Your task to perform on an android device: toggle show notifications on the lock screen Image 0: 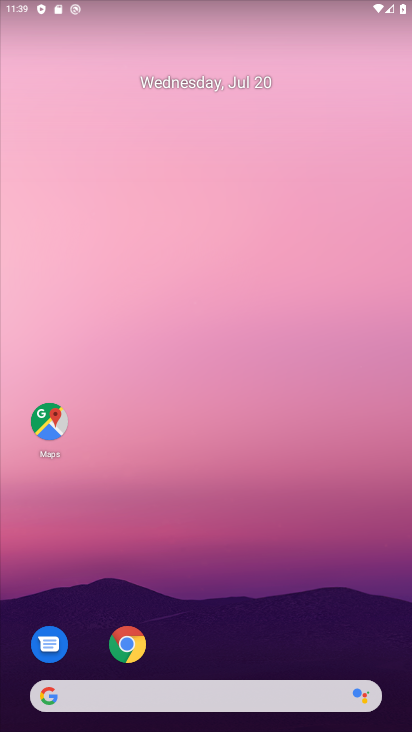
Step 0: drag from (180, 570) to (191, 196)
Your task to perform on an android device: toggle show notifications on the lock screen Image 1: 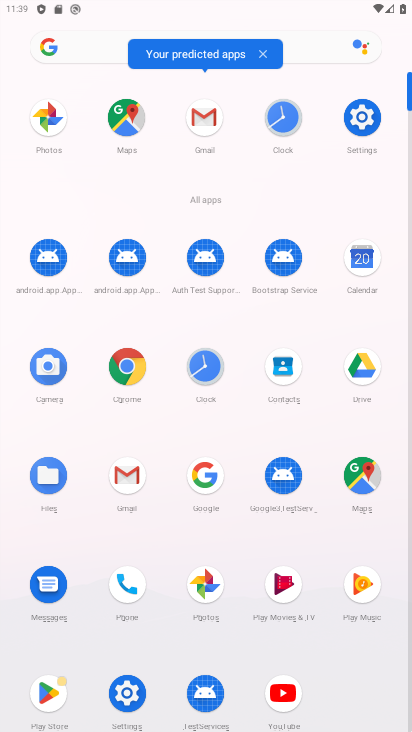
Step 1: click (128, 679)
Your task to perform on an android device: toggle show notifications on the lock screen Image 2: 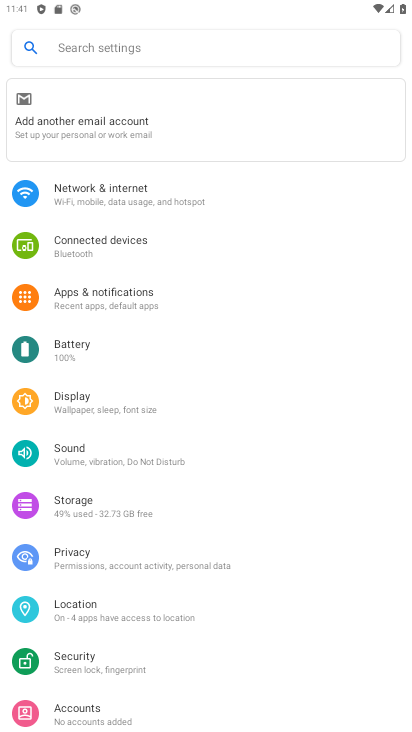
Step 2: press home button
Your task to perform on an android device: toggle show notifications on the lock screen Image 3: 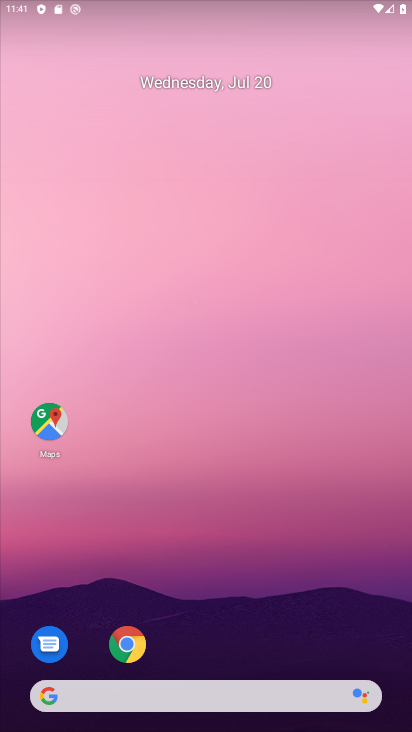
Step 3: drag from (225, 527) to (223, 179)
Your task to perform on an android device: toggle show notifications on the lock screen Image 4: 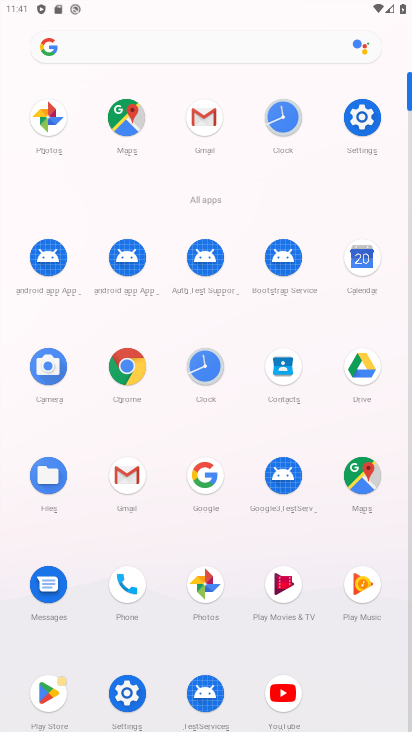
Step 4: click (363, 118)
Your task to perform on an android device: toggle show notifications on the lock screen Image 5: 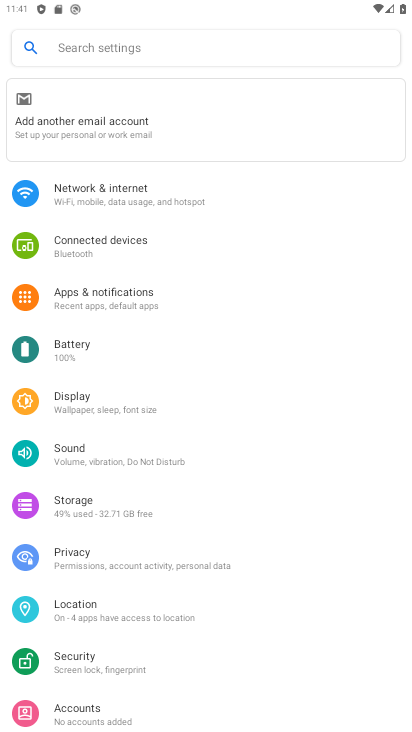
Step 5: task complete